Your task to perform on an android device: remove spam from my inbox in the gmail app Image 0: 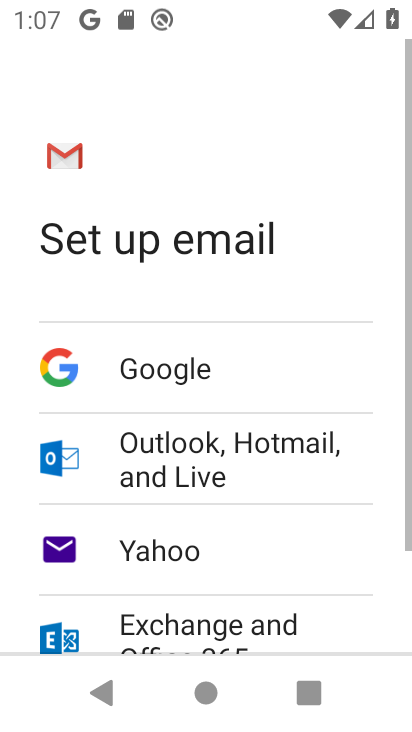
Step 0: press home button
Your task to perform on an android device: remove spam from my inbox in the gmail app Image 1: 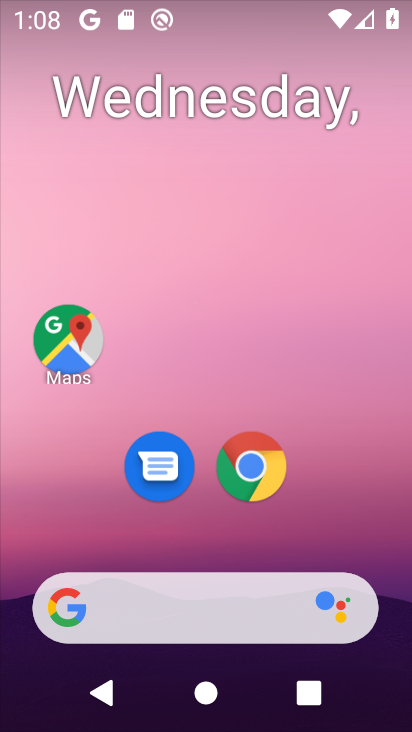
Step 1: drag from (284, 546) to (275, 222)
Your task to perform on an android device: remove spam from my inbox in the gmail app Image 2: 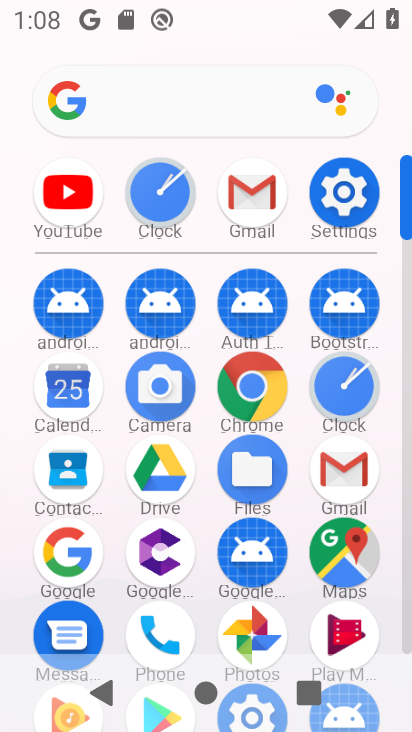
Step 2: click (247, 198)
Your task to perform on an android device: remove spam from my inbox in the gmail app Image 3: 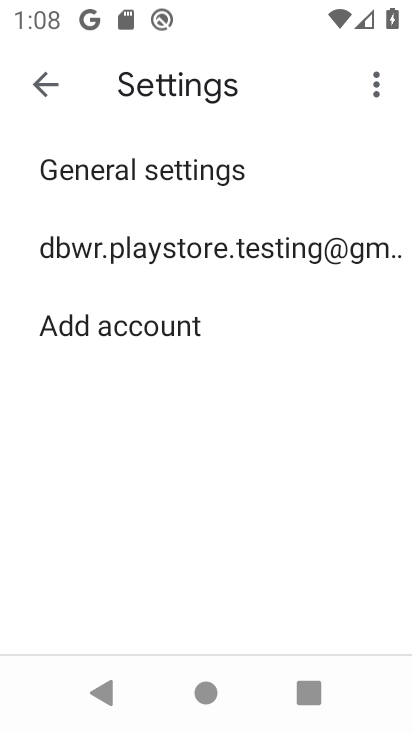
Step 3: press back button
Your task to perform on an android device: remove spam from my inbox in the gmail app Image 4: 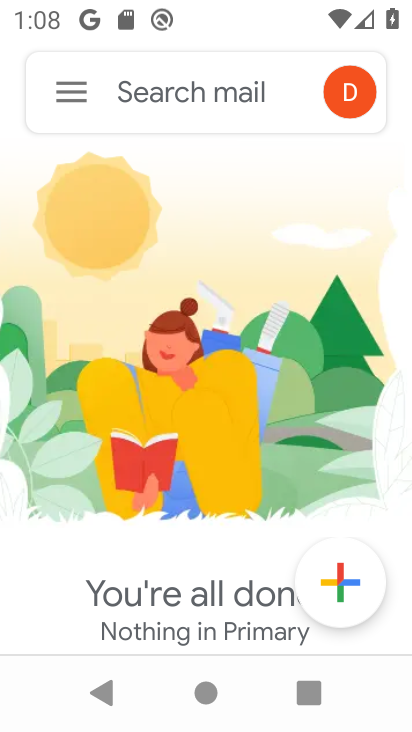
Step 4: click (63, 92)
Your task to perform on an android device: remove spam from my inbox in the gmail app Image 5: 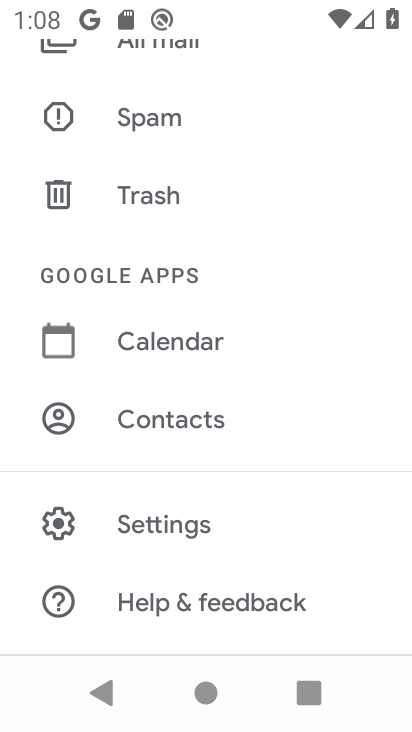
Step 5: drag from (219, 130) to (279, 454)
Your task to perform on an android device: remove spam from my inbox in the gmail app Image 6: 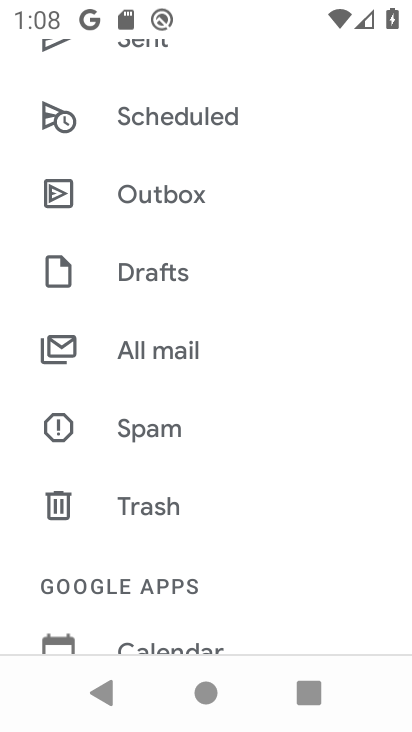
Step 6: drag from (244, 232) to (307, 486)
Your task to perform on an android device: remove spam from my inbox in the gmail app Image 7: 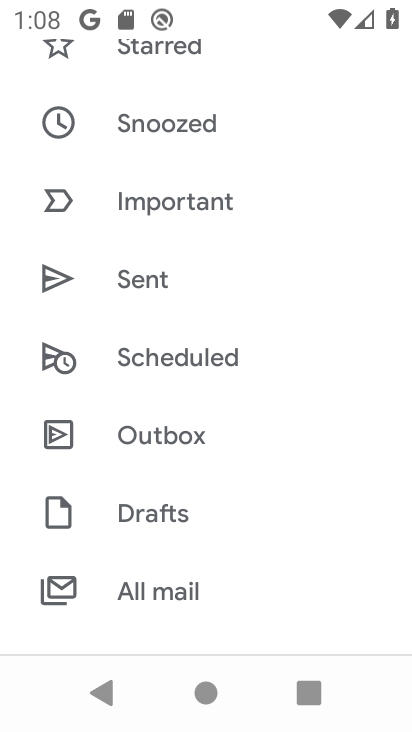
Step 7: drag from (201, 250) to (238, 566)
Your task to perform on an android device: remove spam from my inbox in the gmail app Image 8: 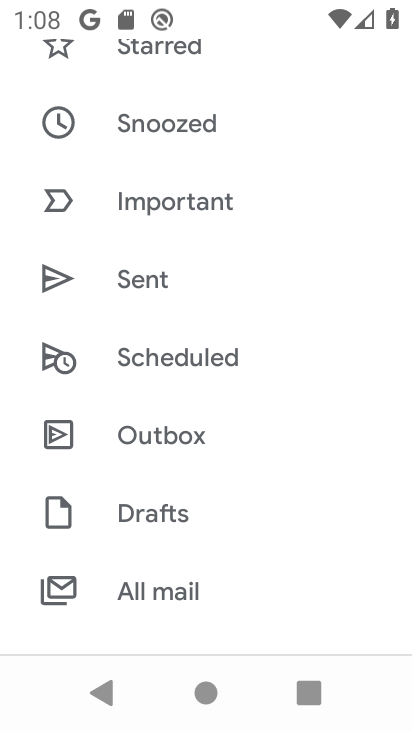
Step 8: drag from (349, 282) to (410, 555)
Your task to perform on an android device: remove spam from my inbox in the gmail app Image 9: 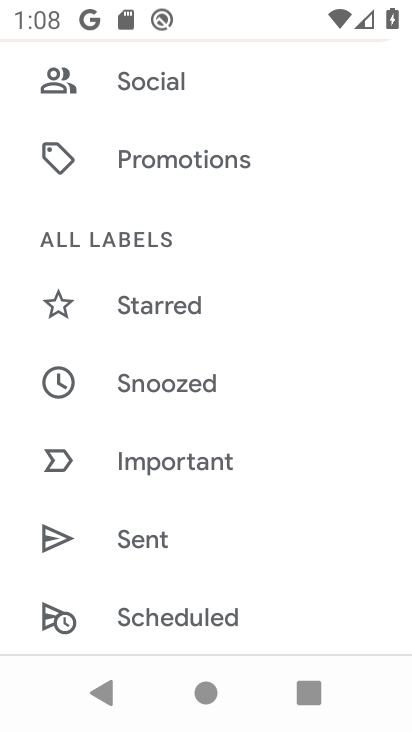
Step 9: drag from (245, 208) to (299, 543)
Your task to perform on an android device: remove spam from my inbox in the gmail app Image 10: 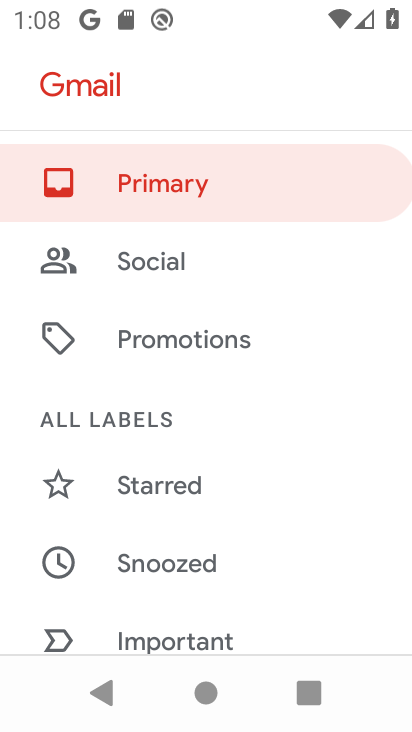
Step 10: drag from (272, 483) to (256, 209)
Your task to perform on an android device: remove spam from my inbox in the gmail app Image 11: 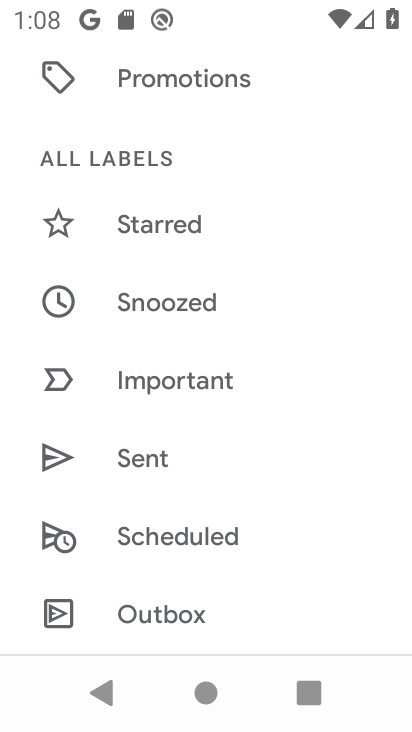
Step 11: drag from (198, 447) to (198, 169)
Your task to perform on an android device: remove spam from my inbox in the gmail app Image 12: 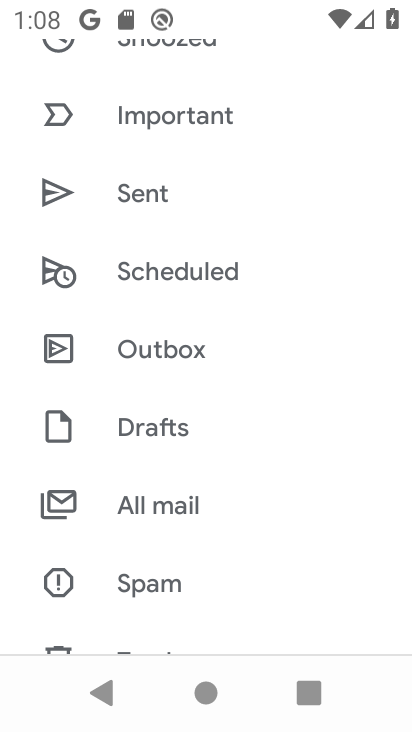
Step 12: drag from (205, 478) to (194, 157)
Your task to perform on an android device: remove spam from my inbox in the gmail app Image 13: 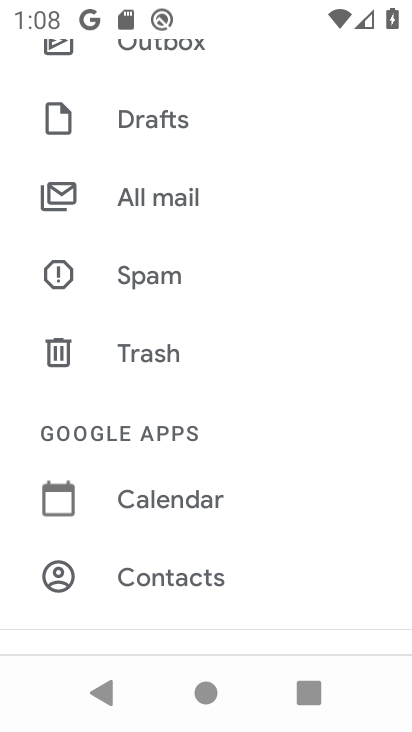
Step 13: drag from (157, 539) to (132, 218)
Your task to perform on an android device: remove spam from my inbox in the gmail app Image 14: 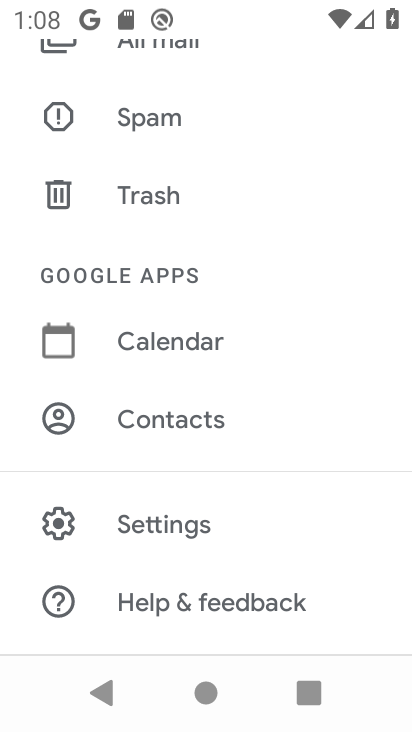
Step 14: click (144, 517)
Your task to perform on an android device: remove spam from my inbox in the gmail app Image 15: 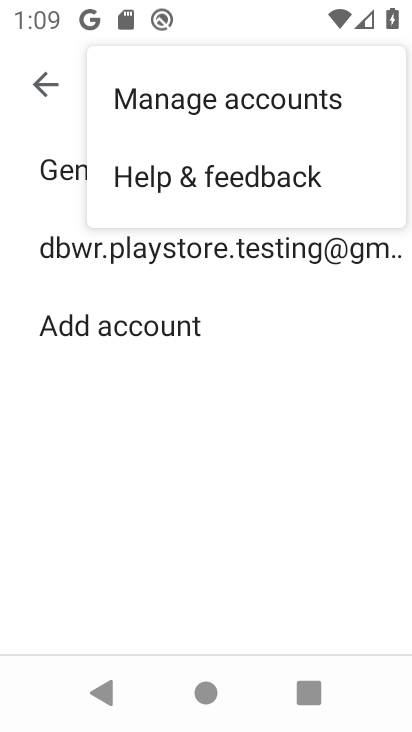
Step 15: task complete